Your task to perform on an android device: install app "Messenger Lite" Image 0: 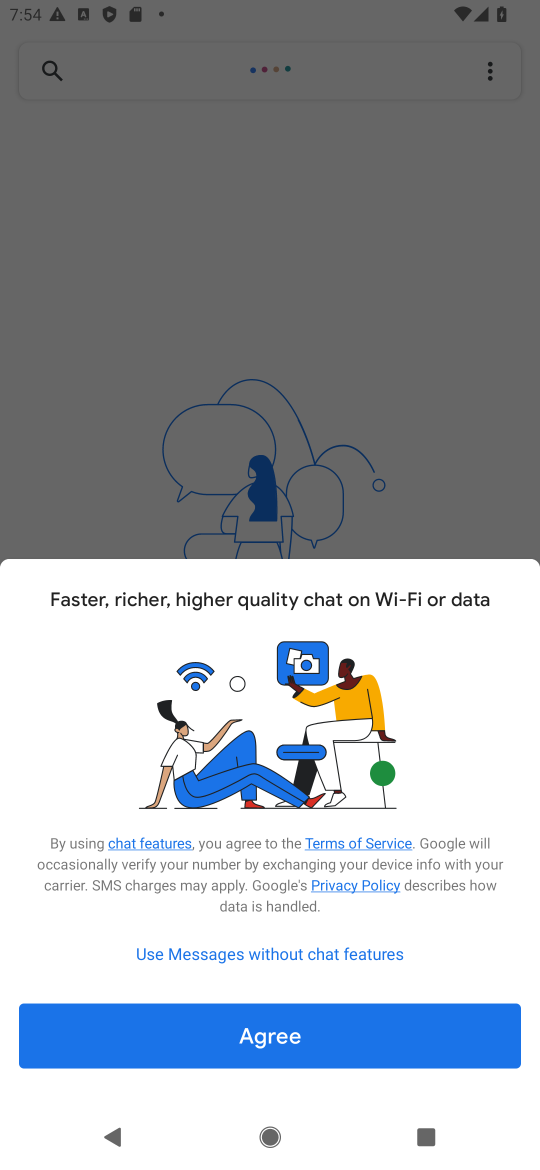
Step 0: press home button
Your task to perform on an android device: install app "Messenger Lite" Image 1: 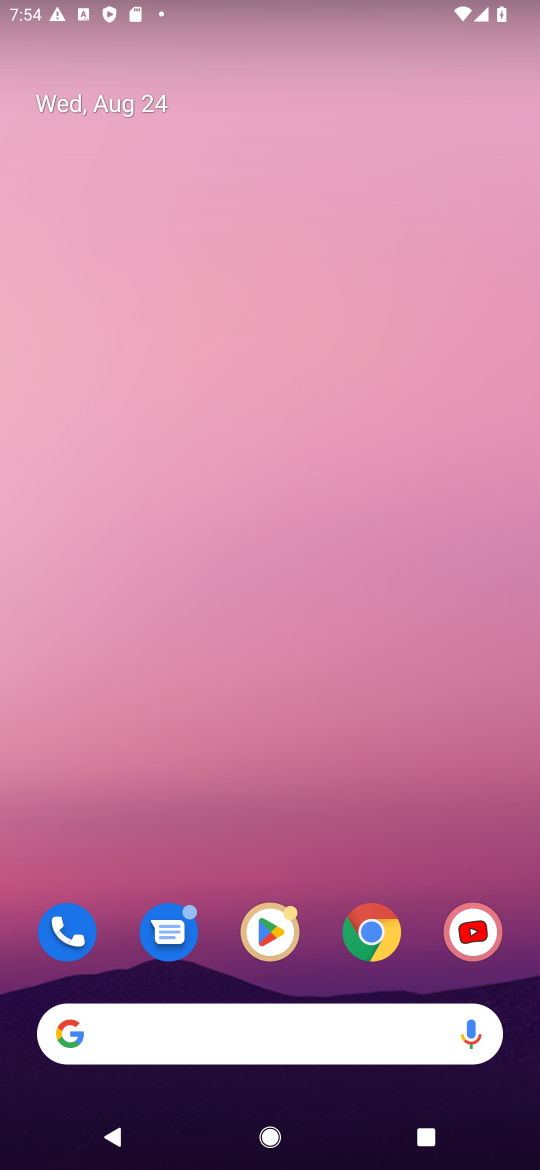
Step 1: click (272, 908)
Your task to perform on an android device: install app "Messenger Lite" Image 2: 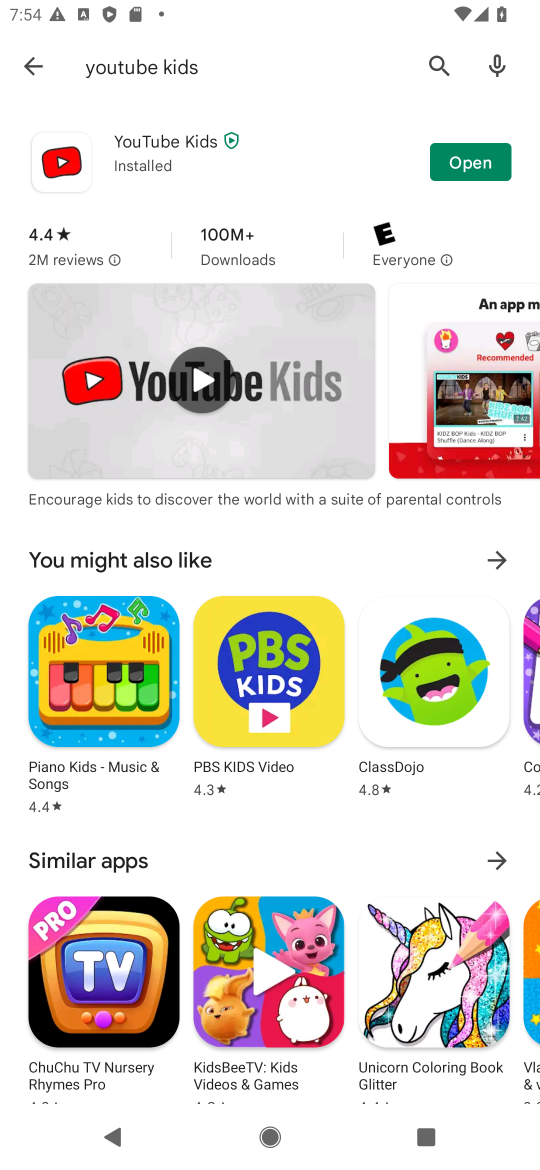
Step 2: click (189, 61)
Your task to perform on an android device: install app "Messenger Lite" Image 3: 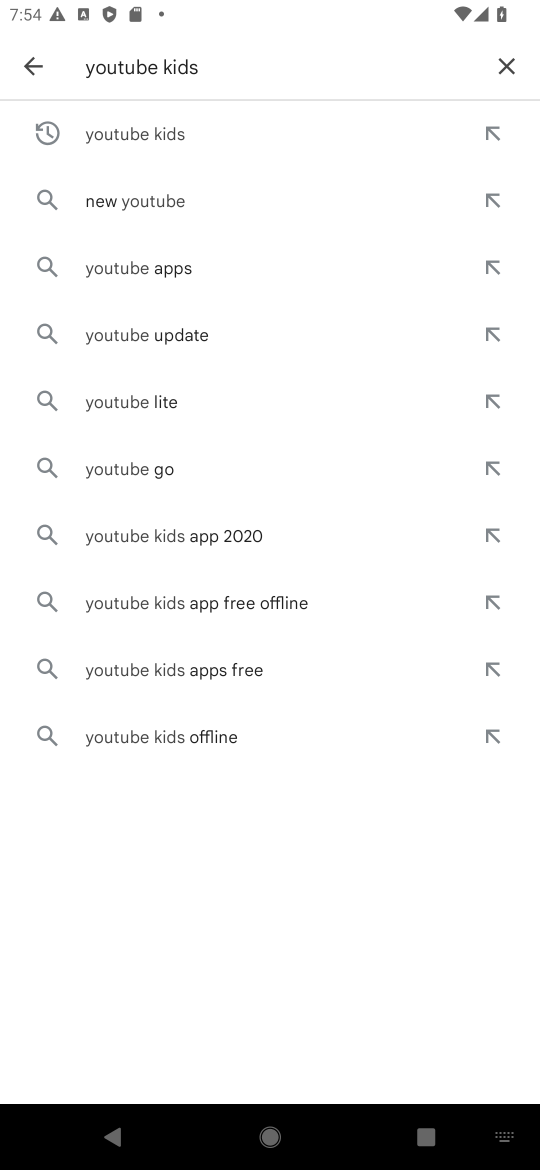
Step 3: click (505, 59)
Your task to perform on an android device: install app "Messenger Lite" Image 4: 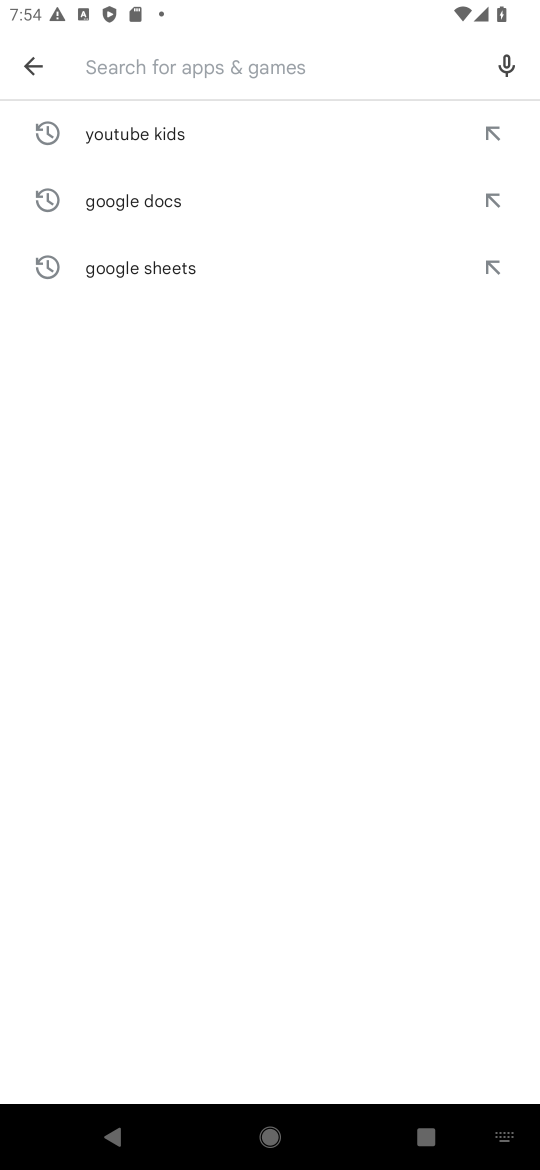
Step 4: type "messenger lite"
Your task to perform on an android device: install app "Messenger Lite" Image 5: 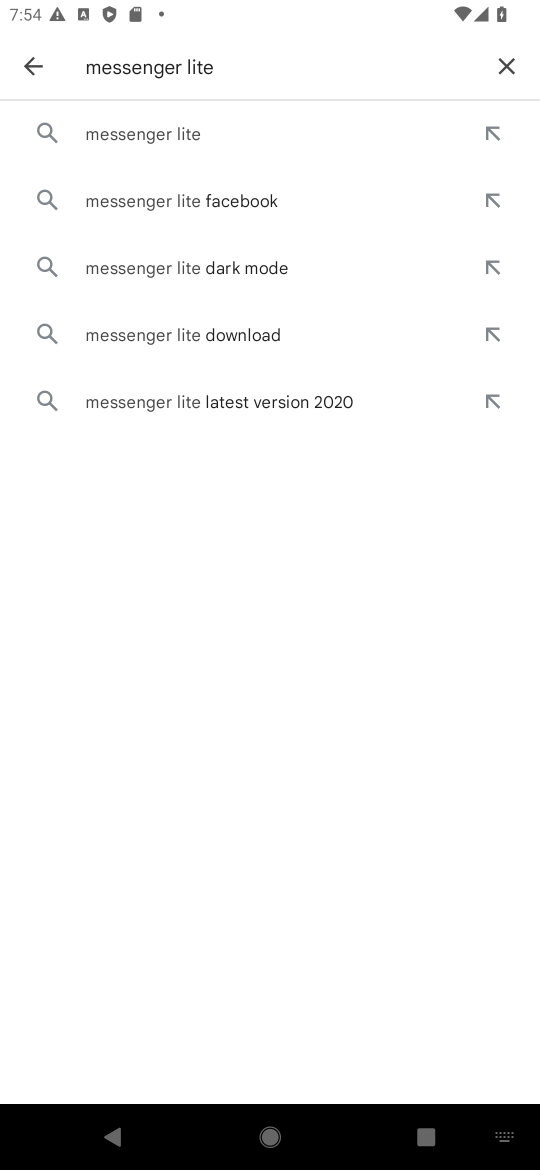
Step 5: click (175, 131)
Your task to perform on an android device: install app "Messenger Lite" Image 6: 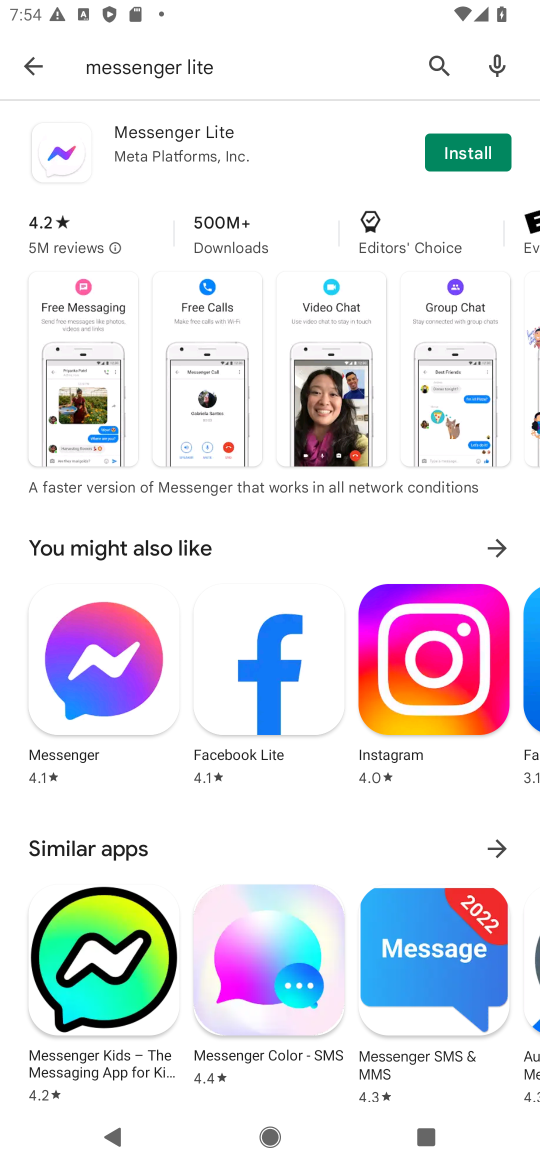
Step 6: click (455, 144)
Your task to perform on an android device: install app "Messenger Lite" Image 7: 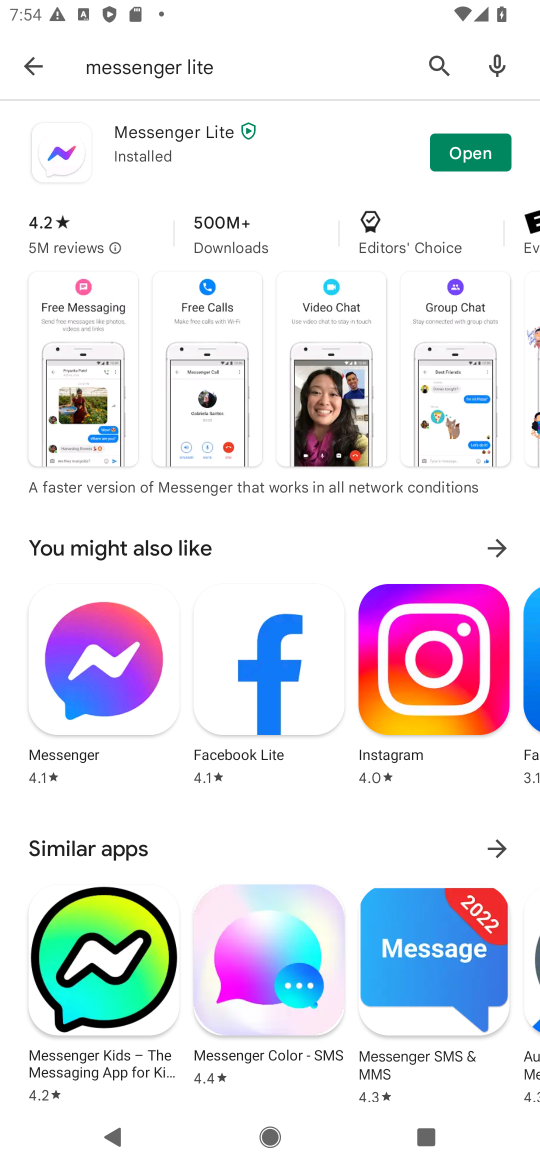
Step 7: task complete